Your task to perform on an android device: Go to ESPN.com Image 0: 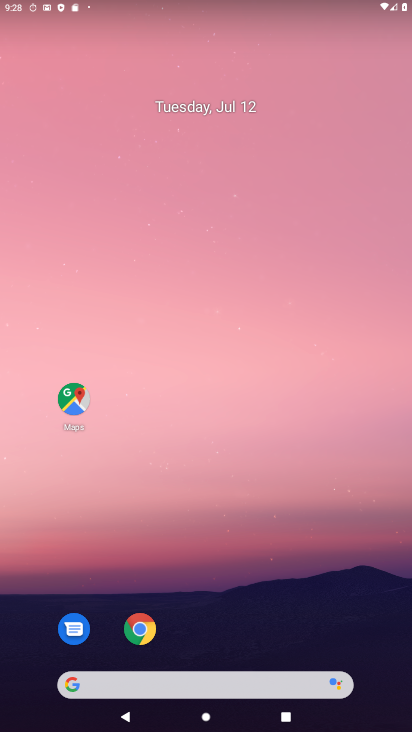
Step 0: drag from (233, 537) to (161, 123)
Your task to perform on an android device: Go to ESPN.com Image 1: 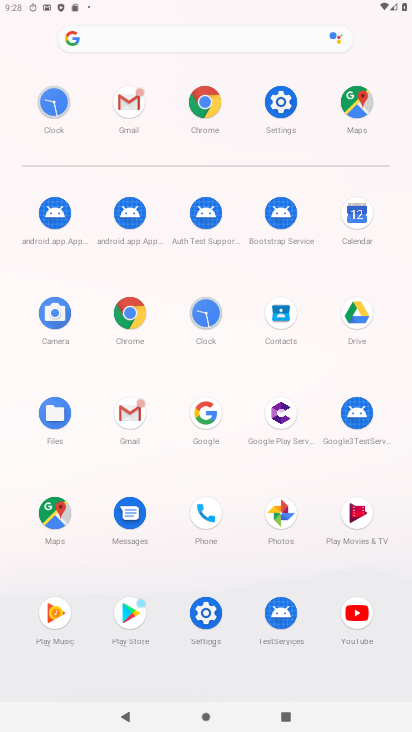
Step 1: click (121, 331)
Your task to perform on an android device: Go to ESPN.com Image 2: 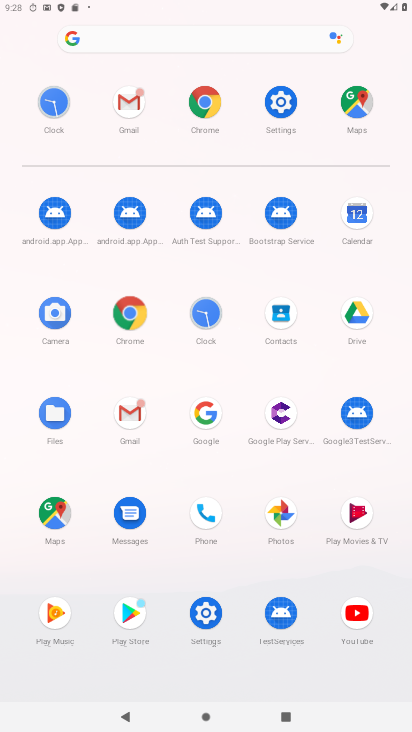
Step 2: click (129, 327)
Your task to perform on an android device: Go to ESPN.com Image 3: 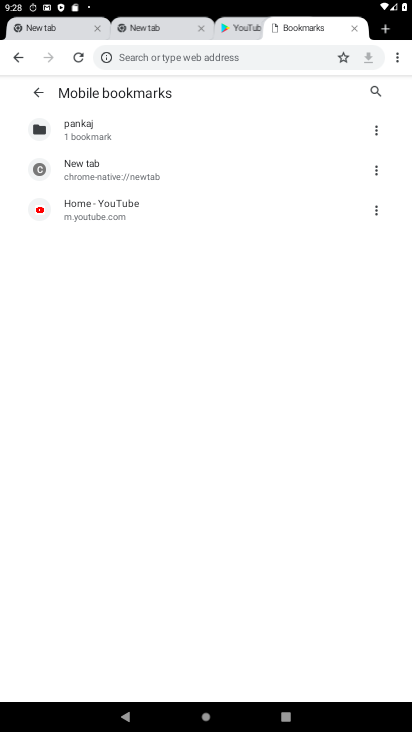
Step 3: drag from (393, 54) to (276, 58)
Your task to perform on an android device: Go to ESPN.com Image 4: 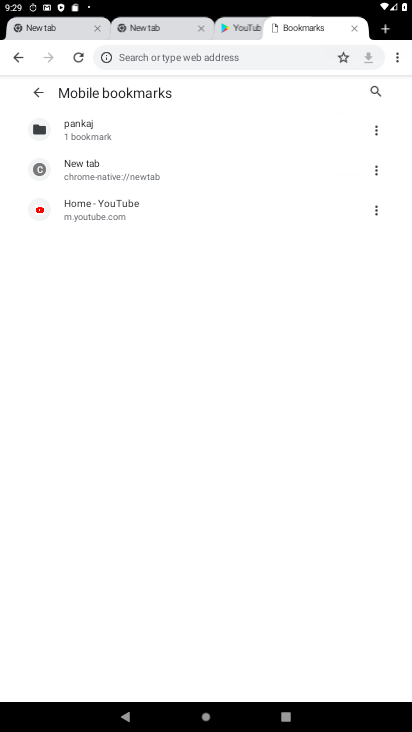
Step 4: click (277, 57)
Your task to perform on an android device: Go to ESPN.com Image 5: 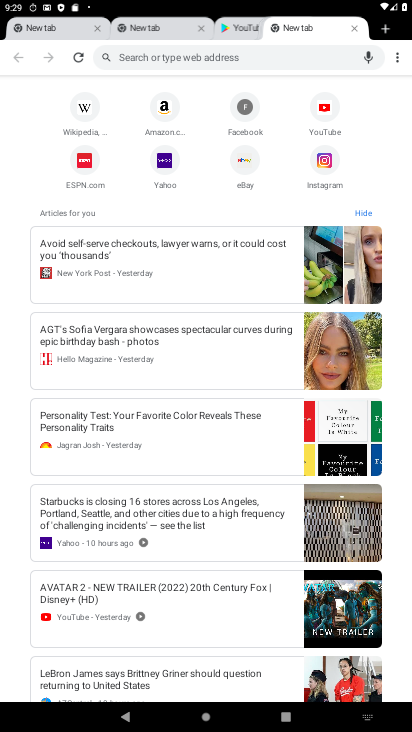
Step 5: click (92, 159)
Your task to perform on an android device: Go to ESPN.com Image 6: 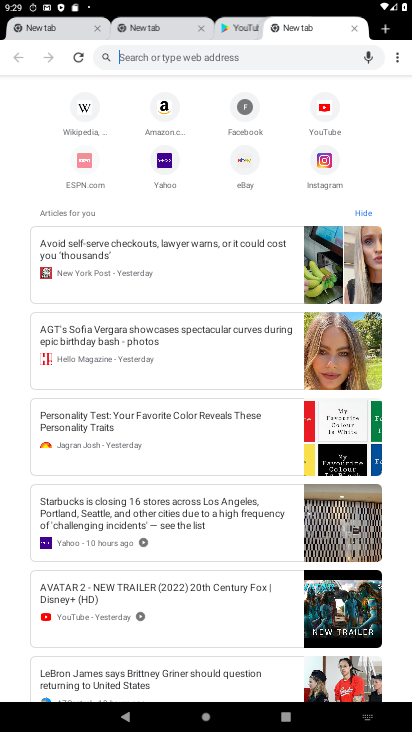
Step 6: click (93, 160)
Your task to perform on an android device: Go to ESPN.com Image 7: 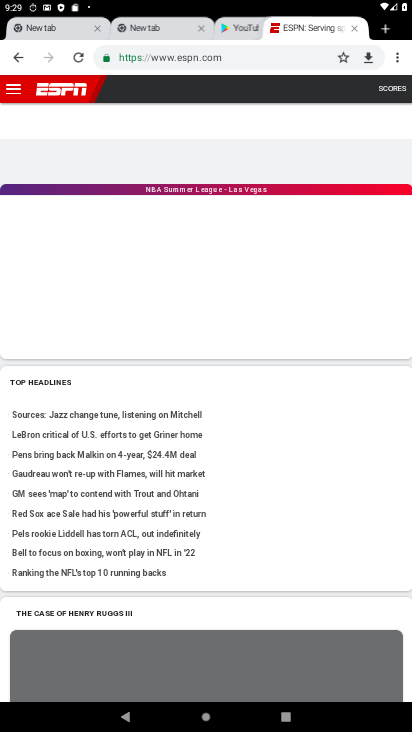
Step 7: task complete